Your task to perform on an android device: refresh tabs in the chrome app Image 0: 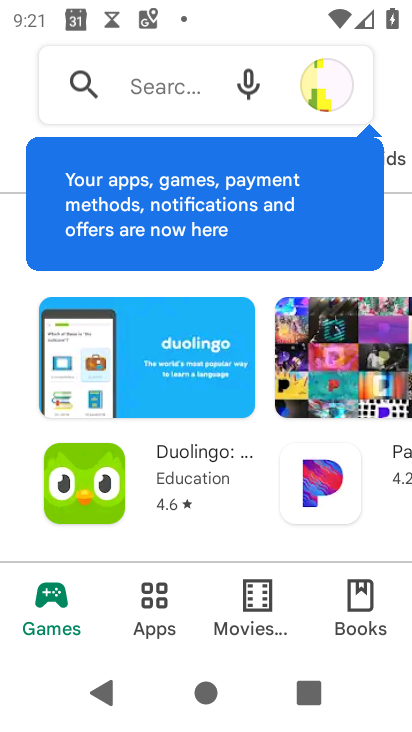
Step 0: press home button
Your task to perform on an android device: refresh tabs in the chrome app Image 1: 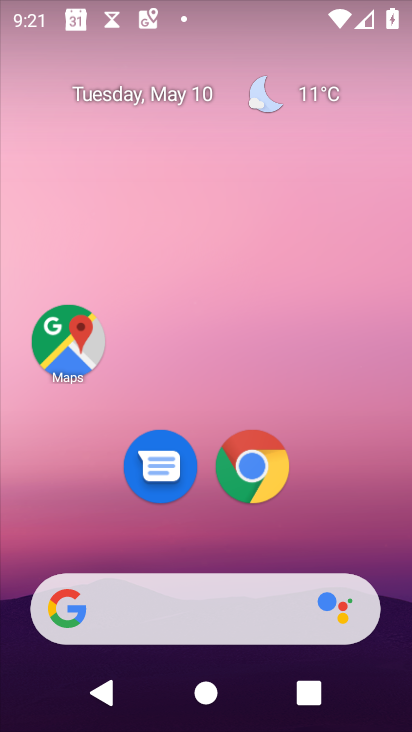
Step 1: click (258, 473)
Your task to perform on an android device: refresh tabs in the chrome app Image 2: 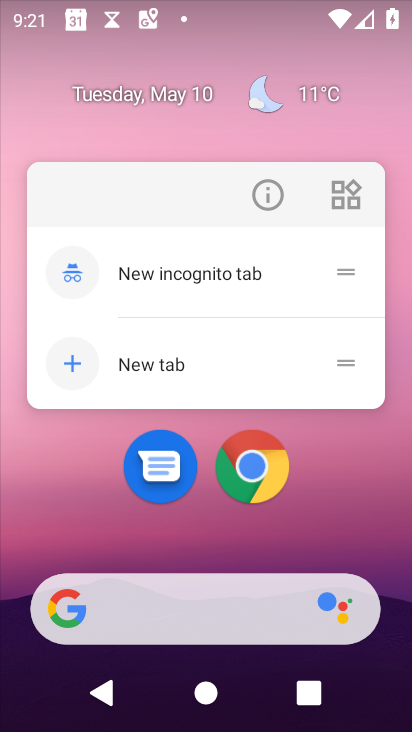
Step 2: click (236, 491)
Your task to perform on an android device: refresh tabs in the chrome app Image 3: 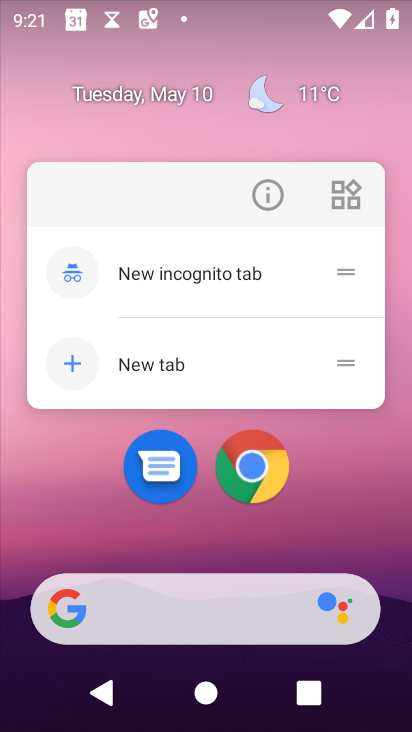
Step 3: click (240, 489)
Your task to perform on an android device: refresh tabs in the chrome app Image 4: 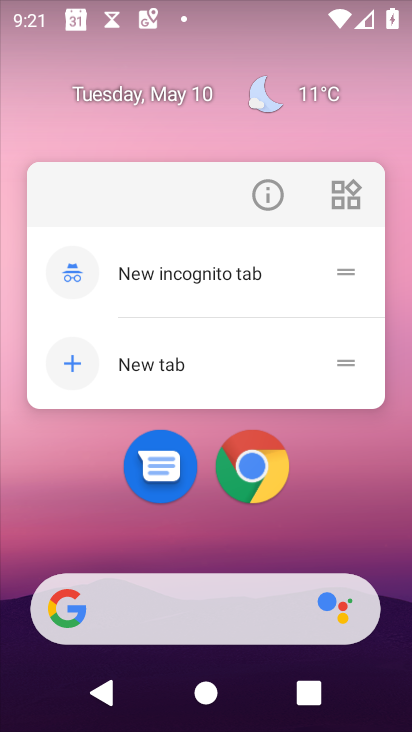
Step 4: click (251, 472)
Your task to perform on an android device: refresh tabs in the chrome app Image 5: 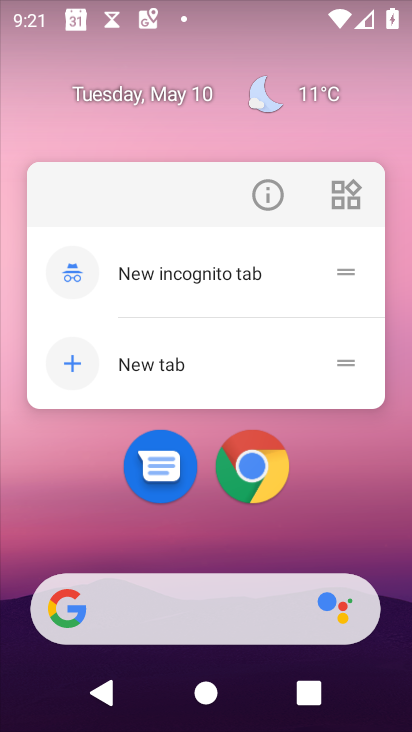
Step 5: click (253, 471)
Your task to perform on an android device: refresh tabs in the chrome app Image 6: 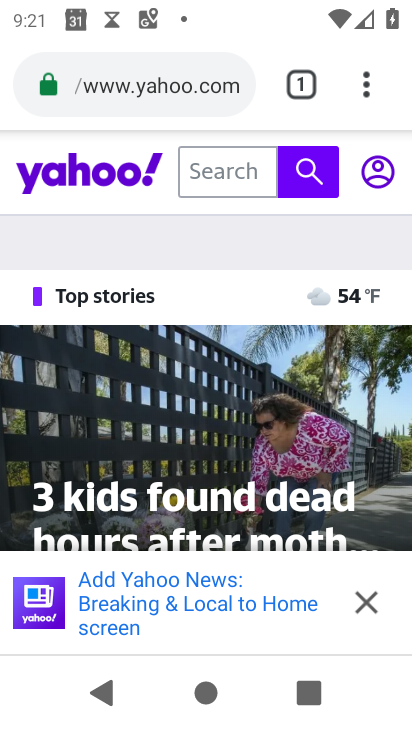
Step 6: click (365, 81)
Your task to perform on an android device: refresh tabs in the chrome app Image 7: 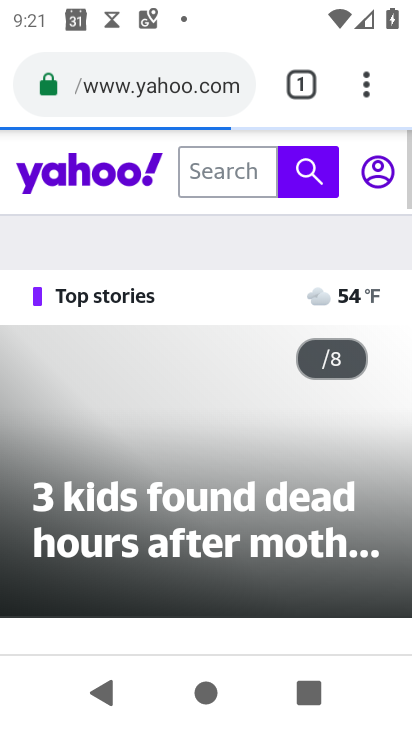
Step 7: click (367, 98)
Your task to perform on an android device: refresh tabs in the chrome app Image 8: 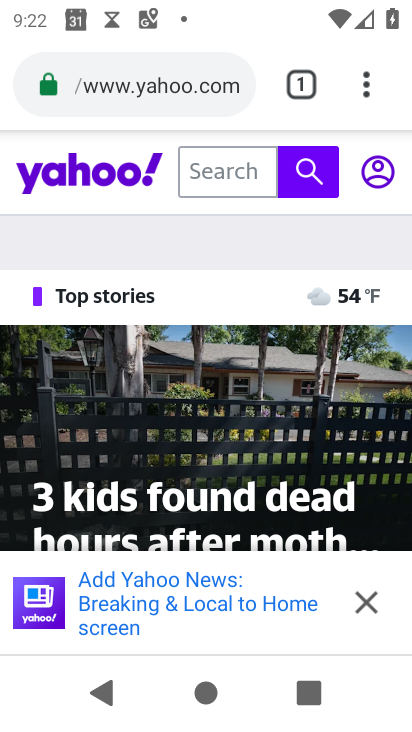
Step 8: click (376, 100)
Your task to perform on an android device: refresh tabs in the chrome app Image 9: 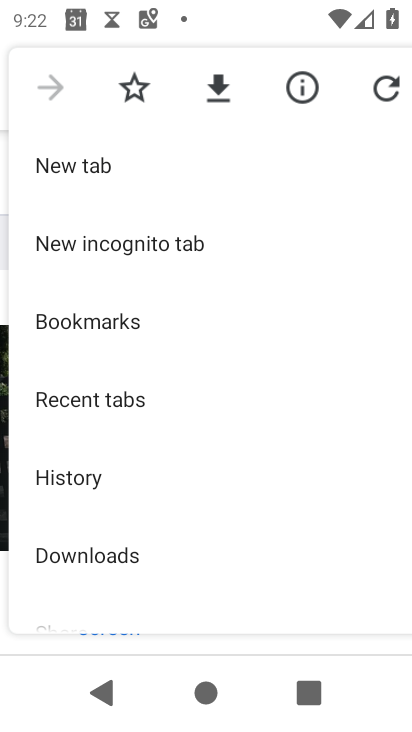
Step 9: click (396, 86)
Your task to perform on an android device: refresh tabs in the chrome app Image 10: 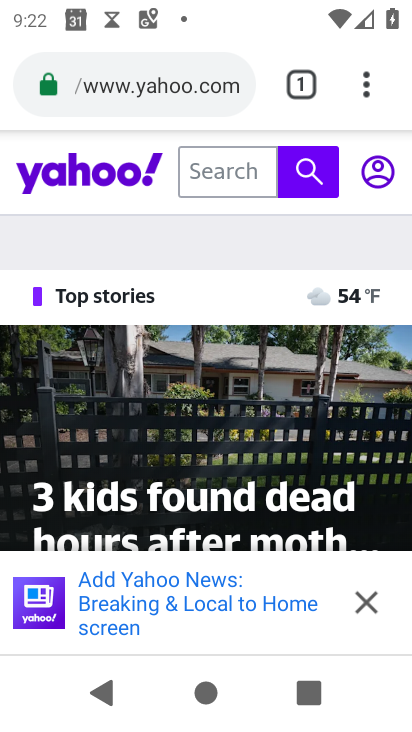
Step 10: task complete